Your task to perform on an android device: move an email to a new category in the gmail app Image 0: 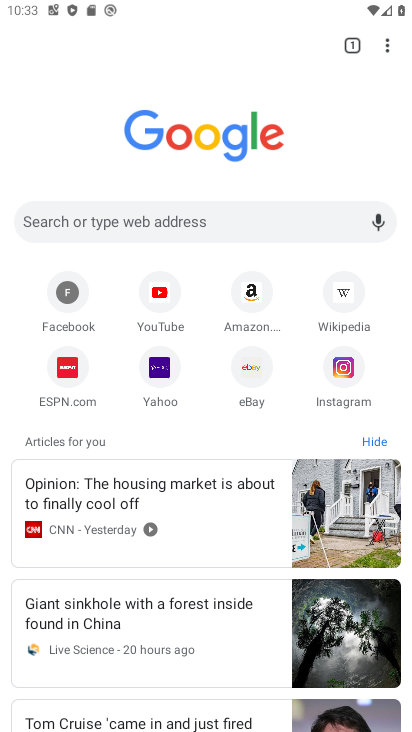
Step 0: press home button
Your task to perform on an android device: move an email to a new category in the gmail app Image 1: 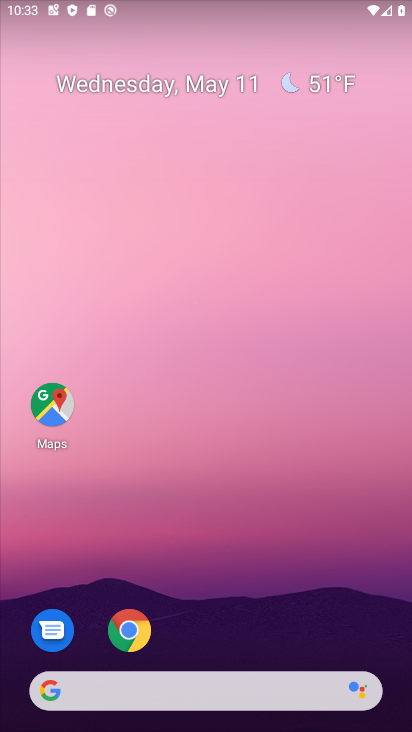
Step 1: drag from (179, 730) to (179, 238)
Your task to perform on an android device: move an email to a new category in the gmail app Image 2: 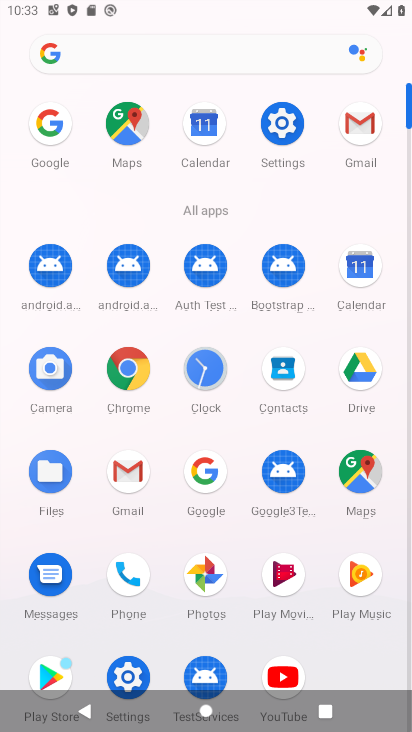
Step 2: click (124, 474)
Your task to perform on an android device: move an email to a new category in the gmail app Image 3: 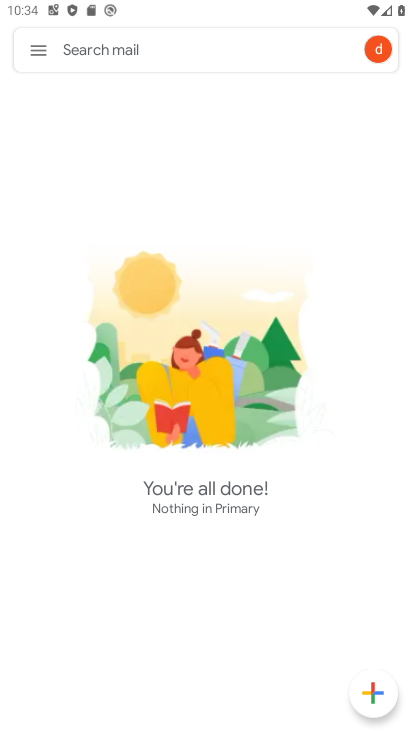
Step 3: task complete